Your task to perform on an android device: Play the last video I watched on Youtube Image 0: 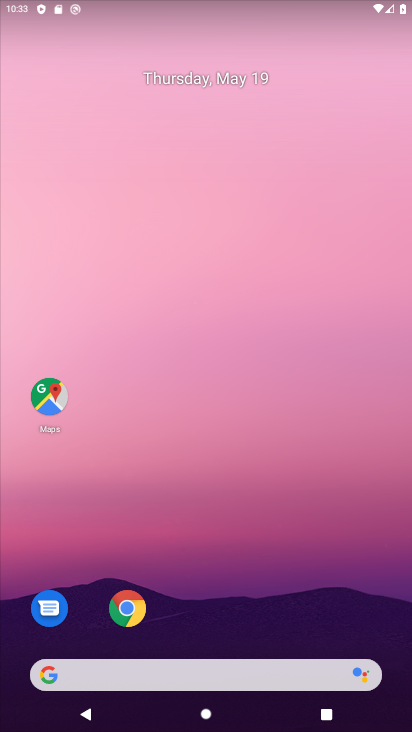
Step 0: drag from (399, 691) to (408, 123)
Your task to perform on an android device: Play the last video I watched on Youtube Image 1: 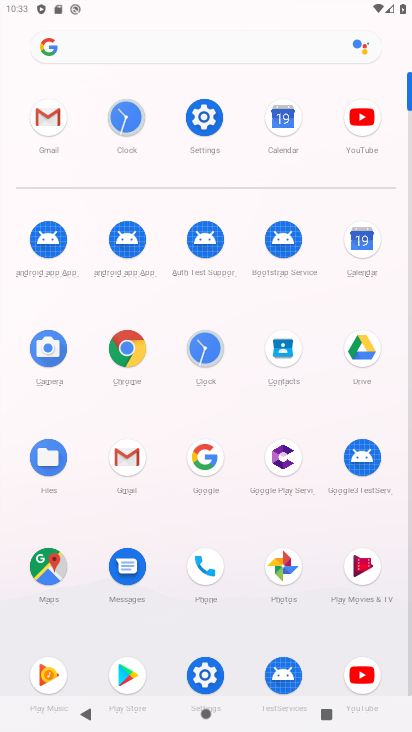
Step 1: click (360, 666)
Your task to perform on an android device: Play the last video I watched on Youtube Image 2: 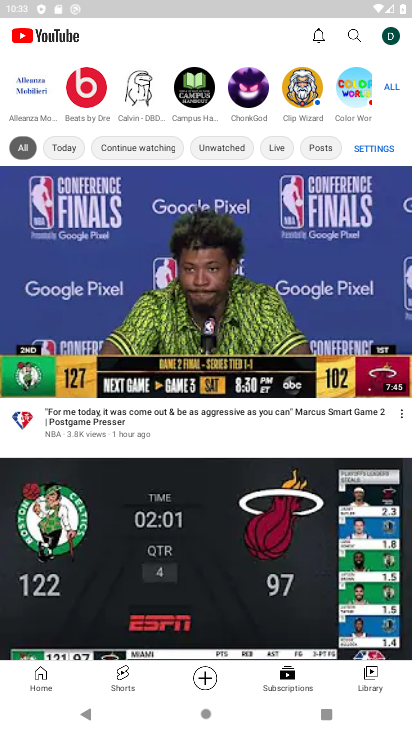
Step 2: click (364, 680)
Your task to perform on an android device: Play the last video I watched on Youtube Image 3: 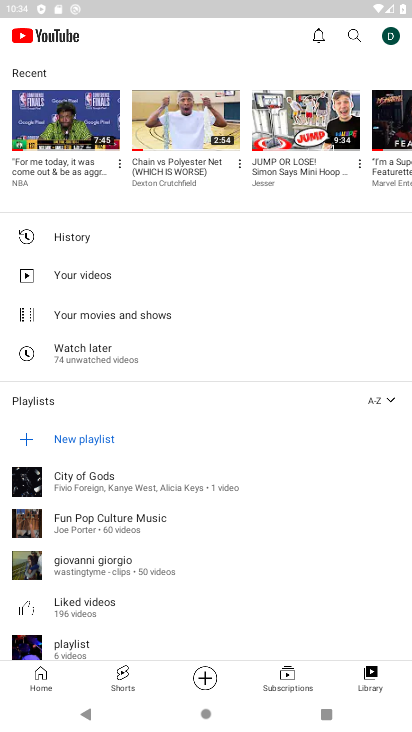
Step 3: click (65, 130)
Your task to perform on an android device: Play the last video I watched on Youtube Image 4: 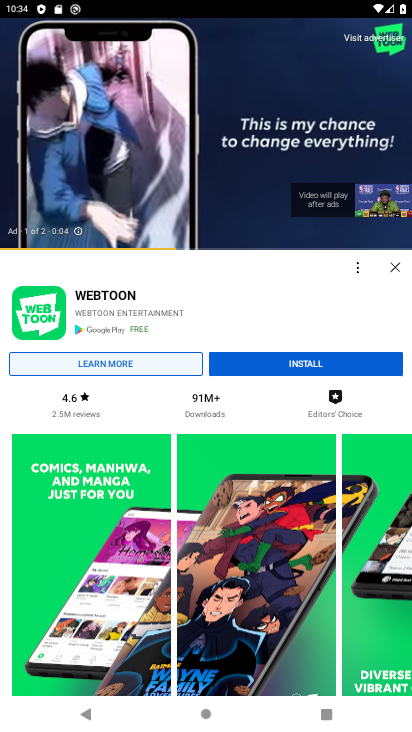
Step 4: task complete